Your task to perform on an android device: see tabs open on other devices in the chrome app Image 0: 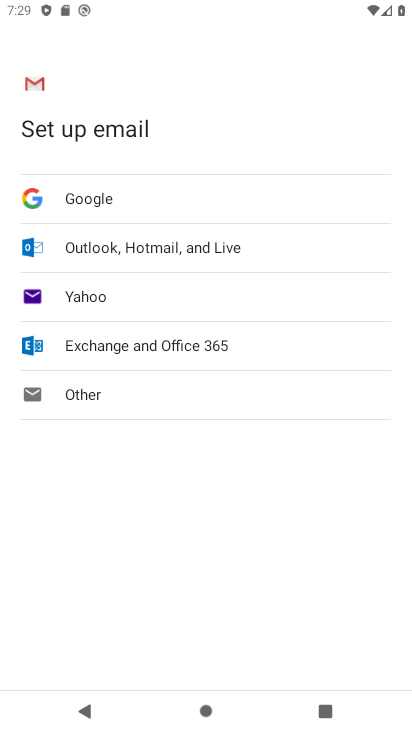
Step 0: press home button
Your task to perform on an android device: see tabs open on other devices in the chrome app Image 1: 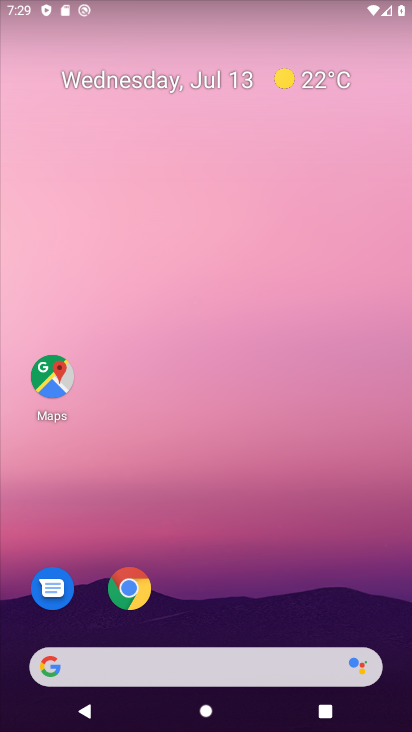
Step 1: drag from (223, 590) to (230, 180)
Your task to perform on an android device: see tabs open on other devices in the chrome app Image 2: 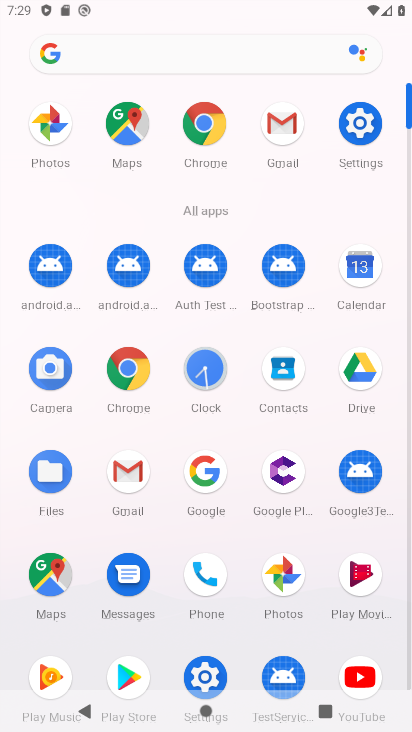
Step 2: click (202, 115)
Your task to perform on an android device: see tabs open on other devices in the chrome app Image 3: 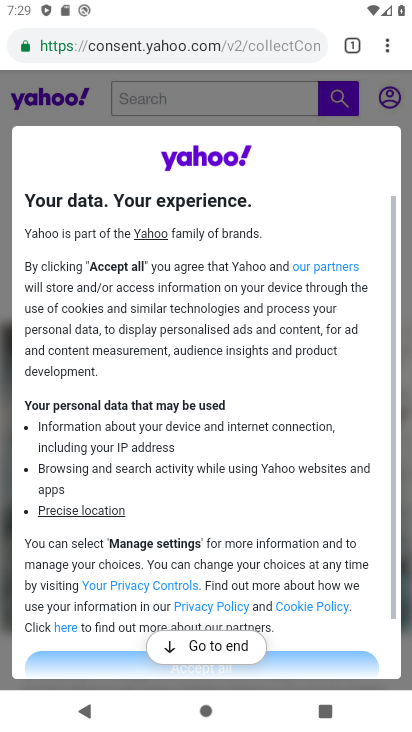
Step 3: click (395, 44)
Your task to perform on an android device: see tabs open on other devices in the chrome app Image 4: 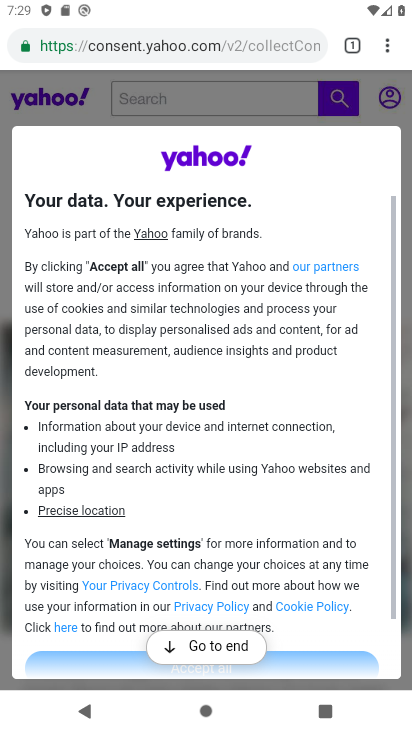
Step 4: click (395, 44)
Your task to perform on an android device: see tabs open on other devices in the chrome app Image 5: 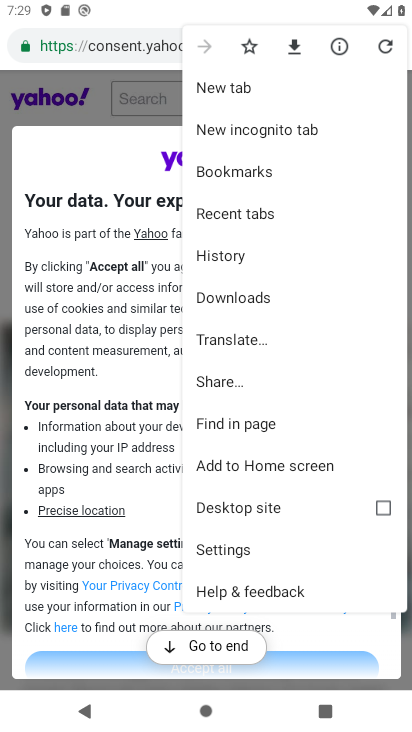
Step 5: click (232, 248)
Your task to perform on an android device: see tabs open on other devices in the chrome app Image 6: 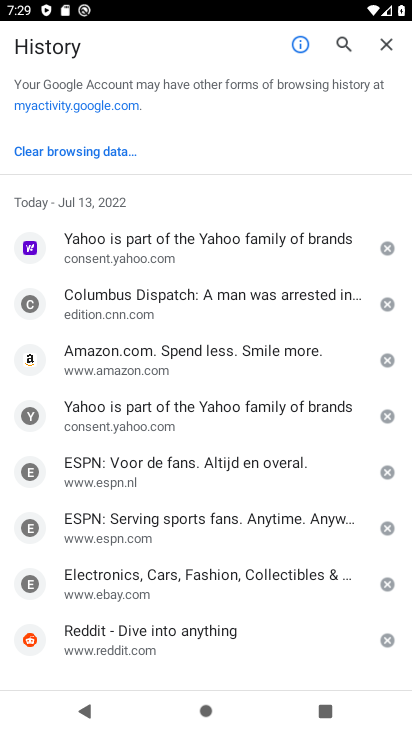
Step 6: task complete